Your task to perform on an android device: open chrome and create a bookmark for the current page Image 0: 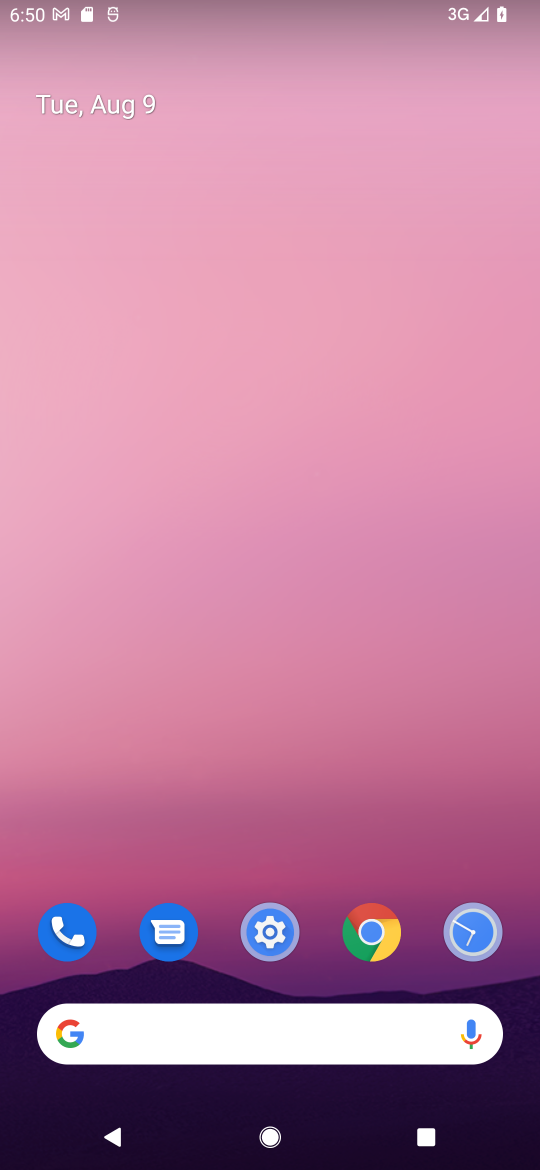
Step 0: drag from (401, 974) to (424, 528)
Your task to perform on an android device: open chrome and create a bookmark for the current page Image 1: 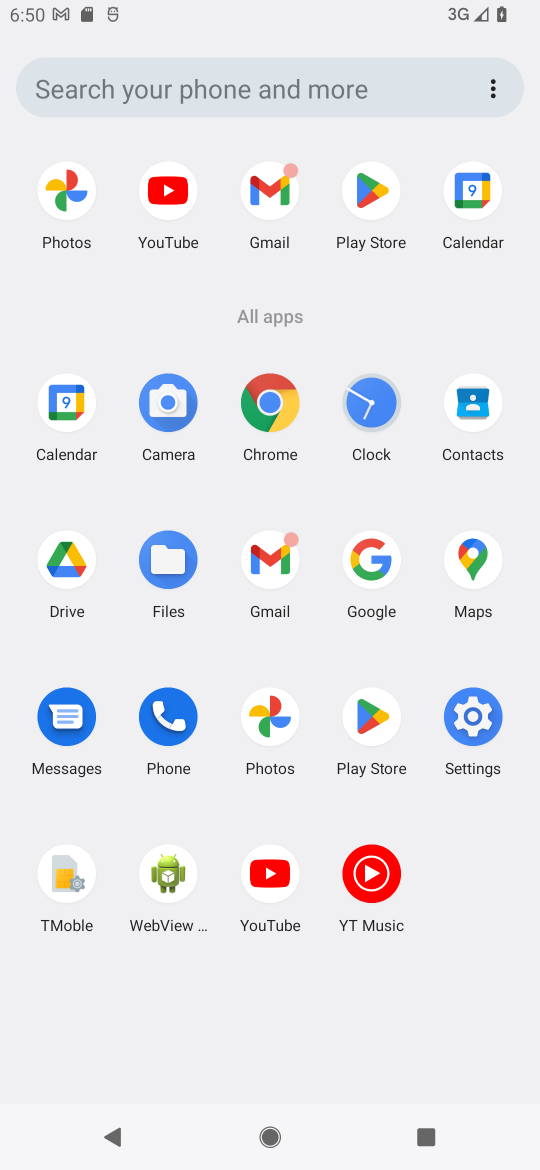
Step 1: click (273, 413)
Your task to perform on an android device: open chrome and create a bookmark for the current page Image 2: 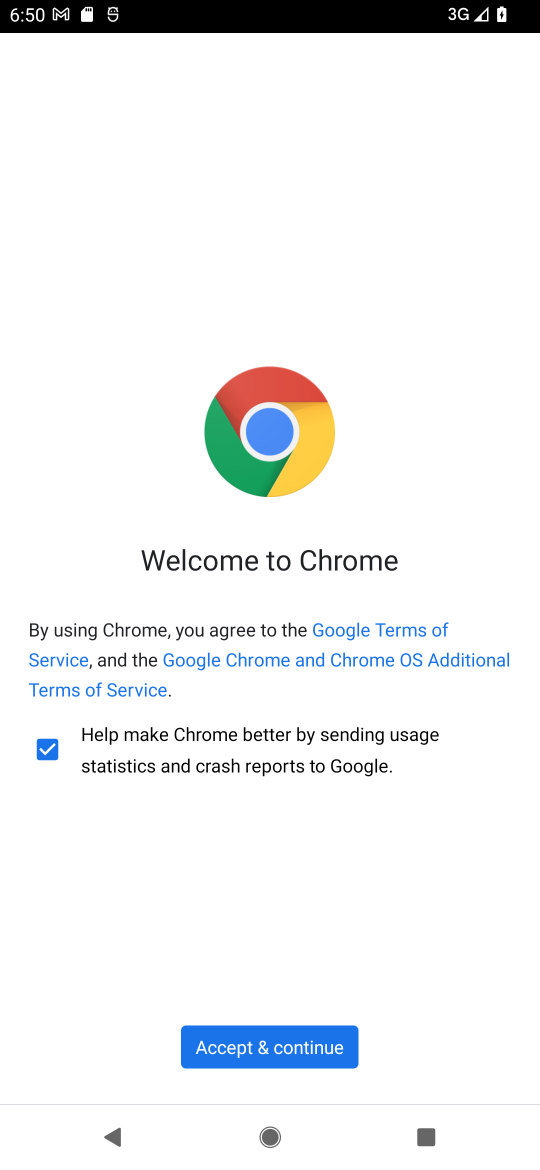
Step 2: click (259, 1039)
Your task to perform on an android device: open chrome and create a bookmark for the current page Image 3: 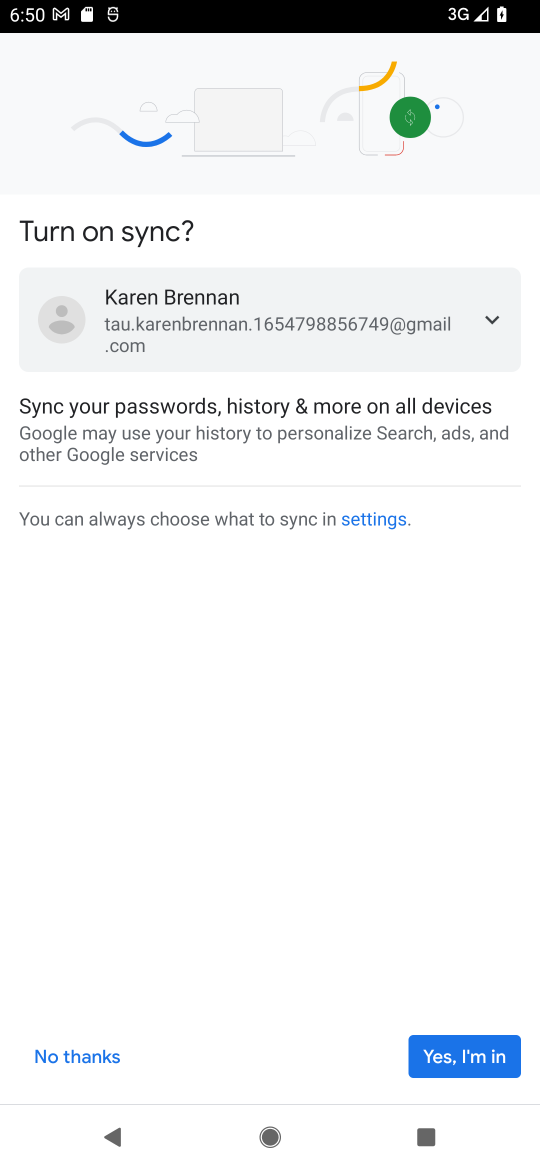
Step 3: click (466, 1063)
Your task to perform on an android device: open chrome and create a bookmark for the current page Image 4: 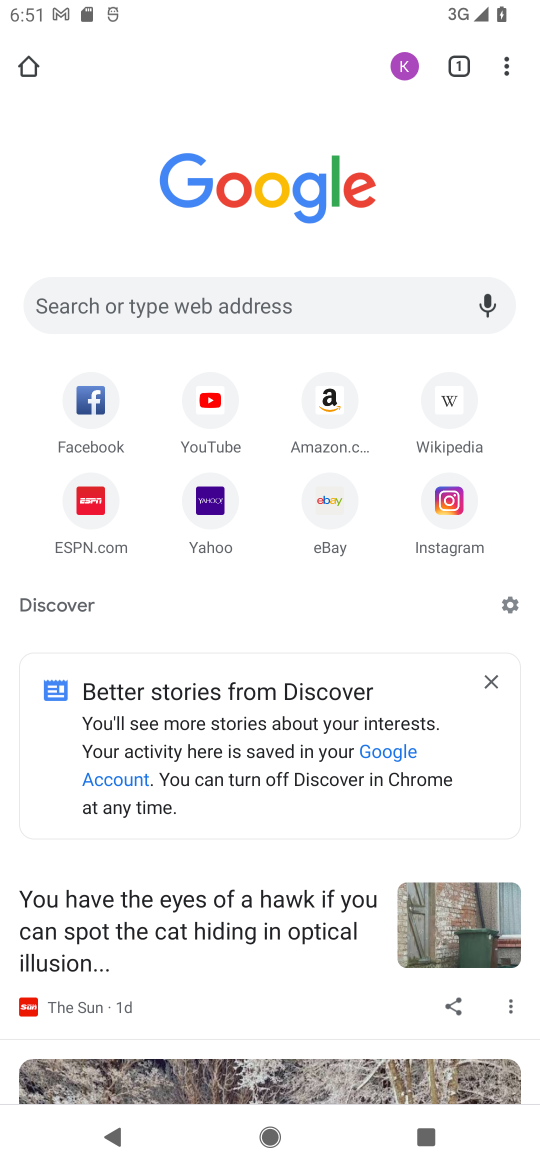
Step 4: click (514, 70)
Your task to perform on an android device: open chrome and create a bookmark for the current page Image 5: 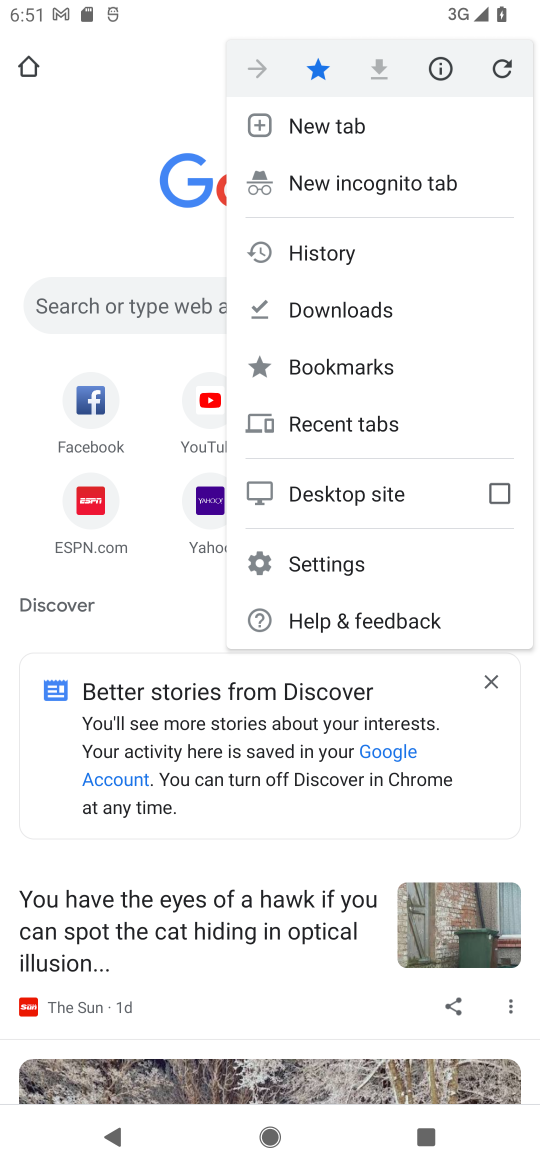
Step 5: task complete